Your task to perform on an android device: turn on sleep mode Image 0: 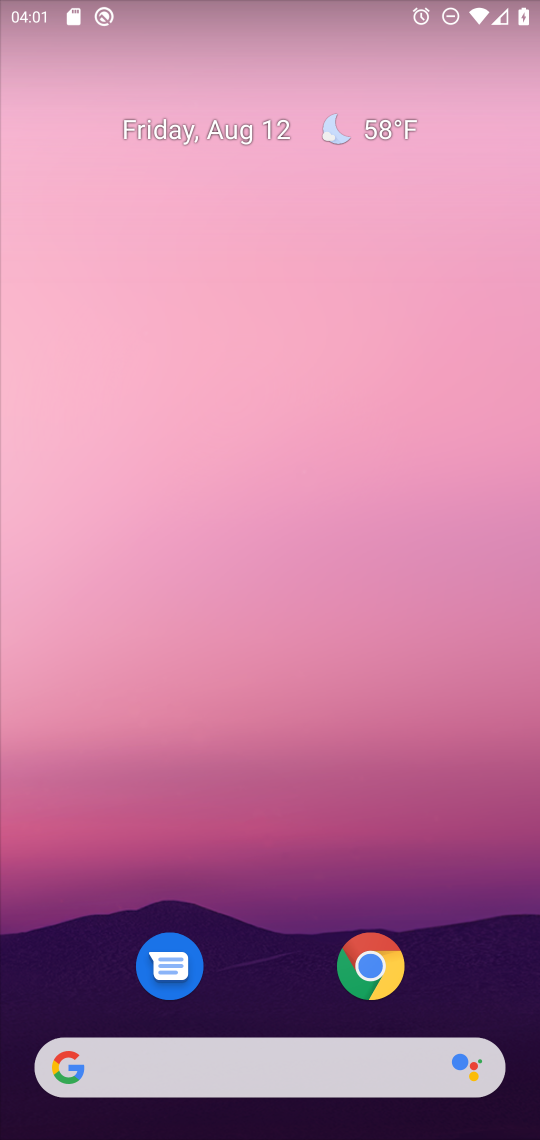
Step 0: drag from (278, 907) to (338, 242)
Your task to perform on an android device: turn on sleep mode Image 1: 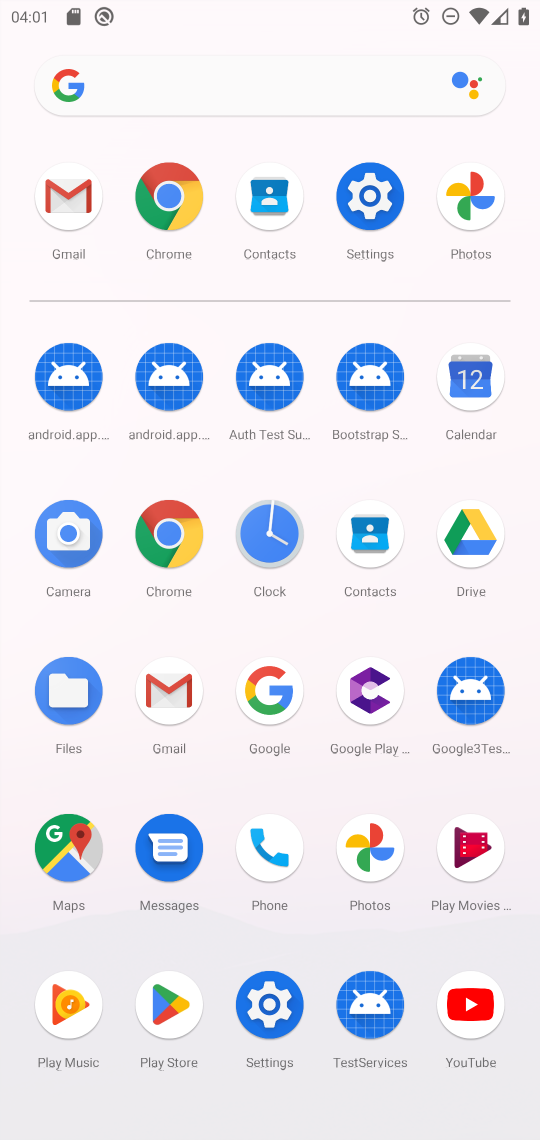
Step 1: click (266, 990)
Your task to perform on an android device: turn on sleep mode Image 2: 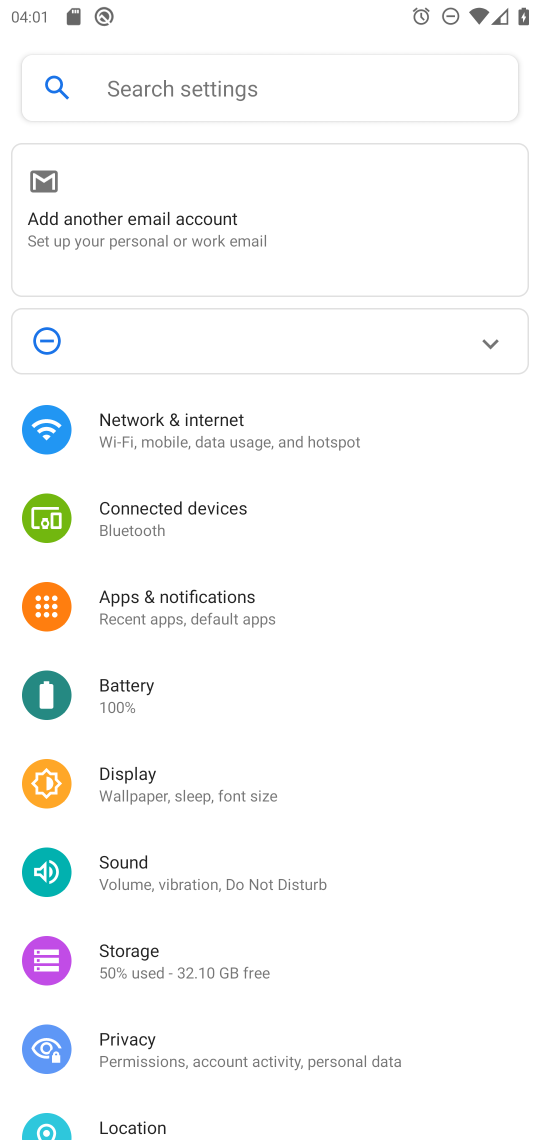
Step 2: click (134, 792)
Your task to perform on an android device: turn on sleep mode Image 3: 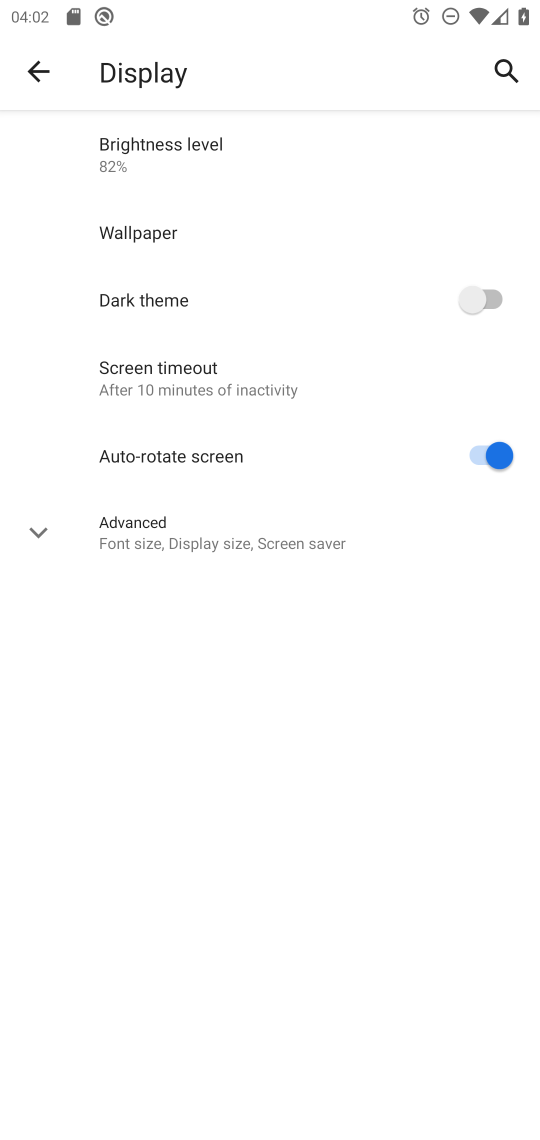
Step 3: click (221, 382)
Your task to perform on an android device: turn on sleep mode Image 4: 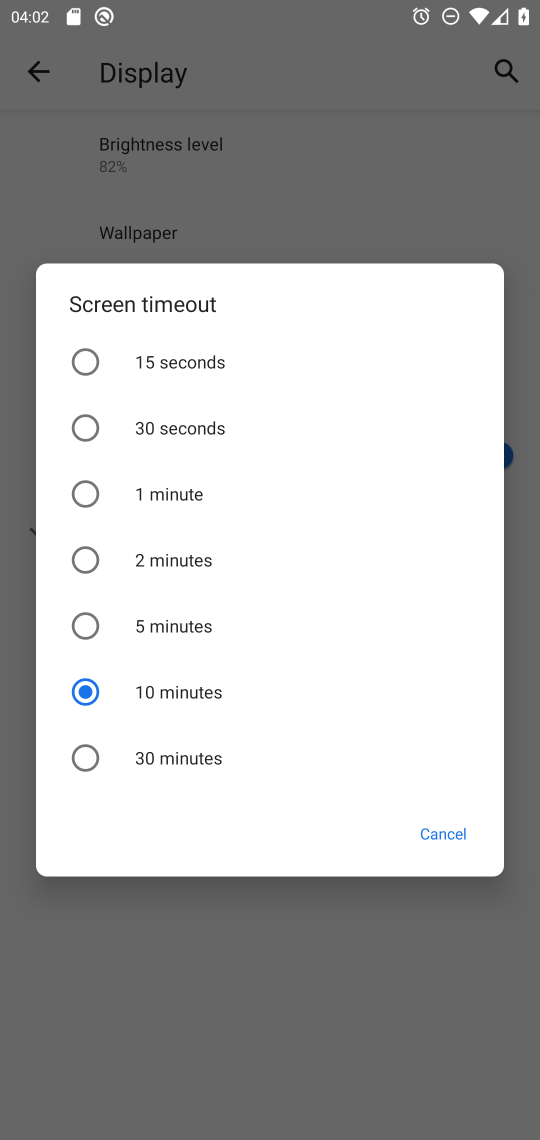
Step 4: task complete